Your task to perform on an android device: Show me popular games on the Play Store Image 0: 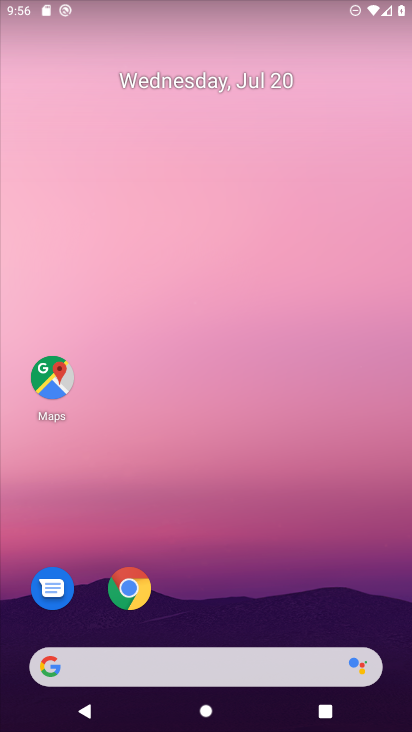
Step 0: drag from (186, 609) to (228, 37)
Your task to perform on an android device: Show me popular games on the Play Store Image 1: 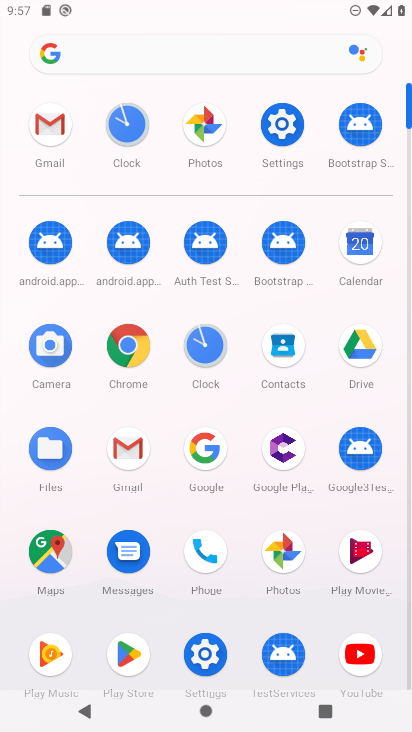
Step 1: click (109, 653)
Your task to perform on an android device: Show me popular games on the Play Store Image 2: 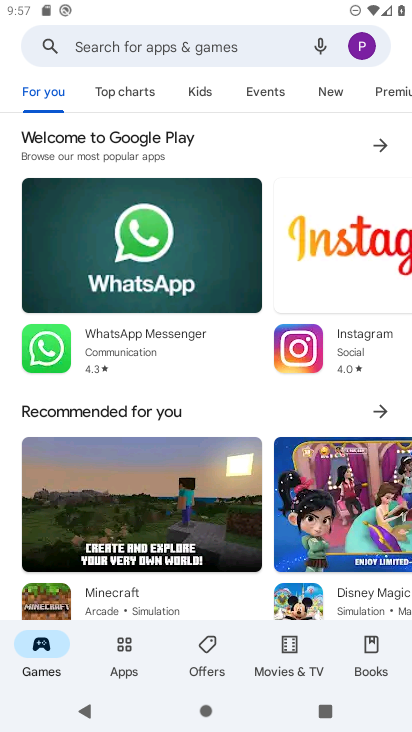
Step 2: click (153, 92)
Your task to perform on an android device: Show me popular games on the Play Store Image 3: 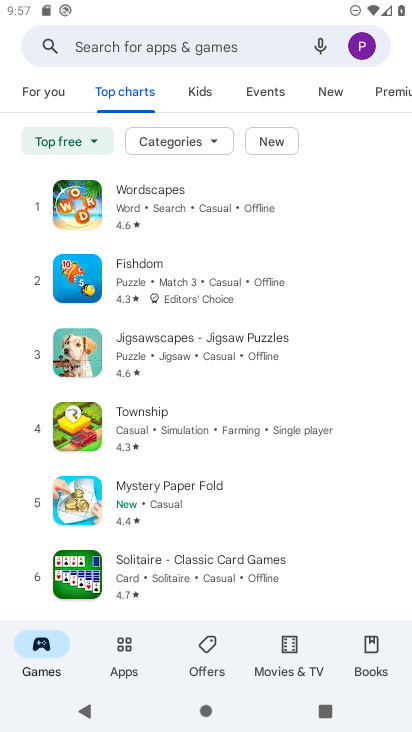
Step 3: task complete